Your task to perform on an android device: check storage Image 0: 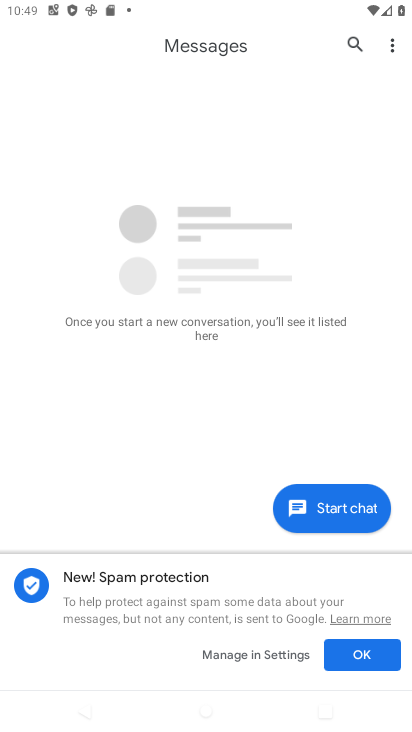
Step 0: press home button
Your task to perform on an android device: check storage Image 1: 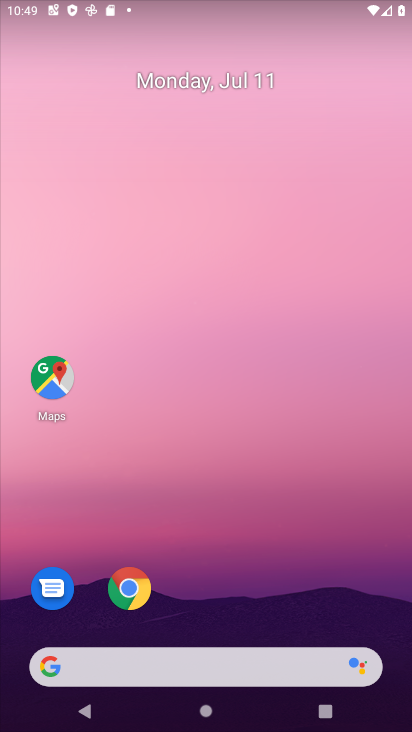
Step 1: drag from (145, 704) to (327, 10)
Your task to perform on an android device: check storage Image 2: 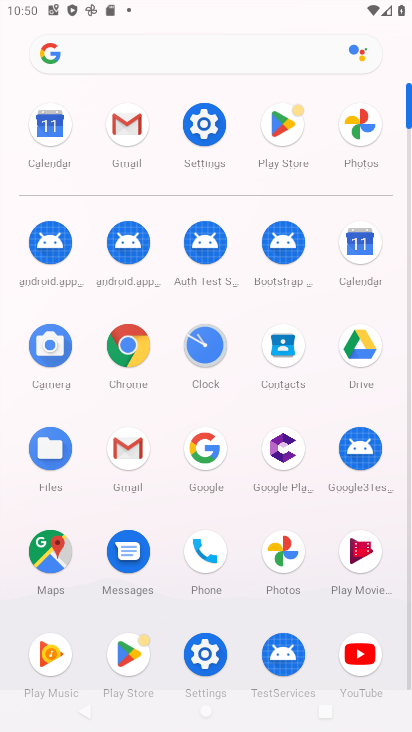
Step 2: click (212, 132)
Your task to perform on an android device: check storage Image 3: 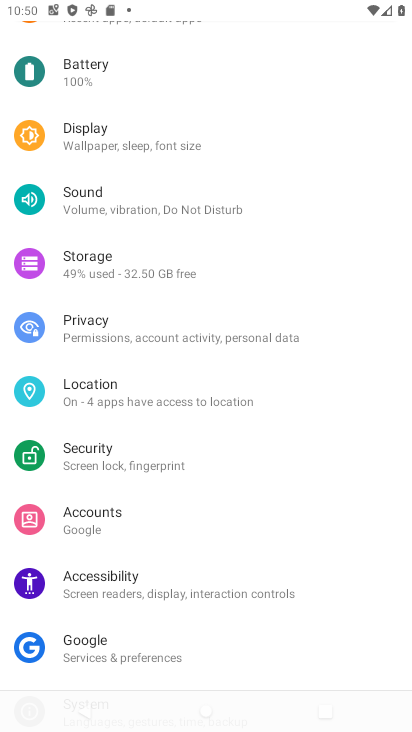
Step 3: click (136, 271)
Your task to perform on an android device: check storage Image 4: 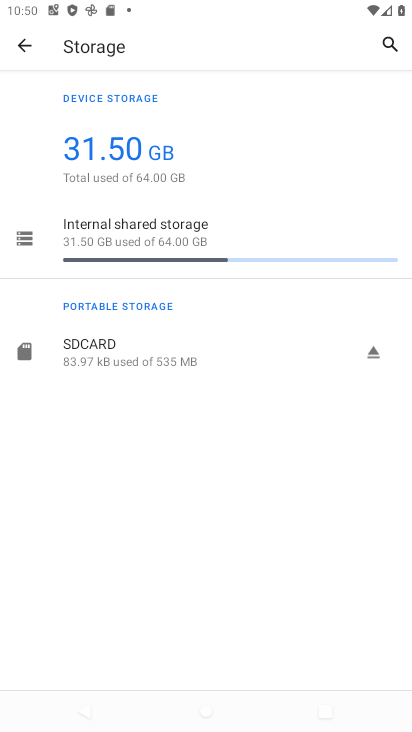
Step 4: task complete